Your task to perform on an android device: Search for the best 4k TVs Image 0: 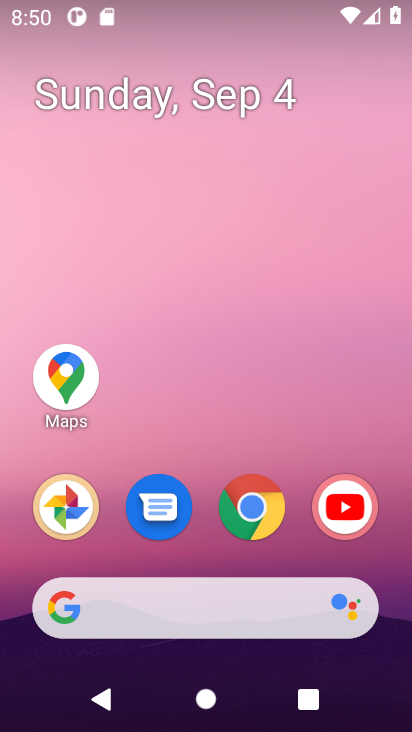
Step 0: click (255, 510)
Your task to perform on an android device: Search for the best 4k TVs Image 1: 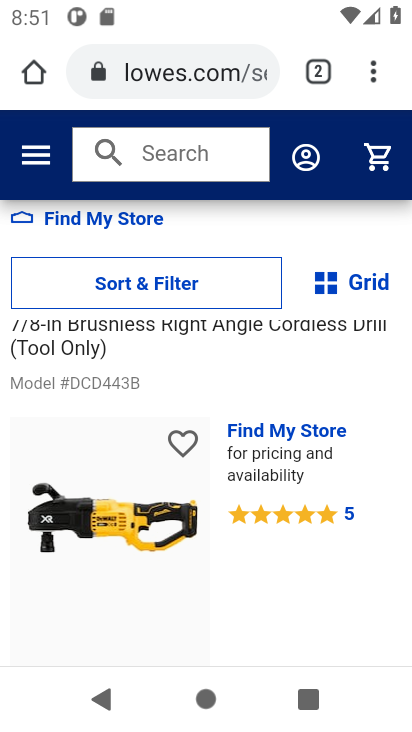
Step 1: click (184, 54)
Your task to perform on an android device: Search for the best 4k TVs Image 2: 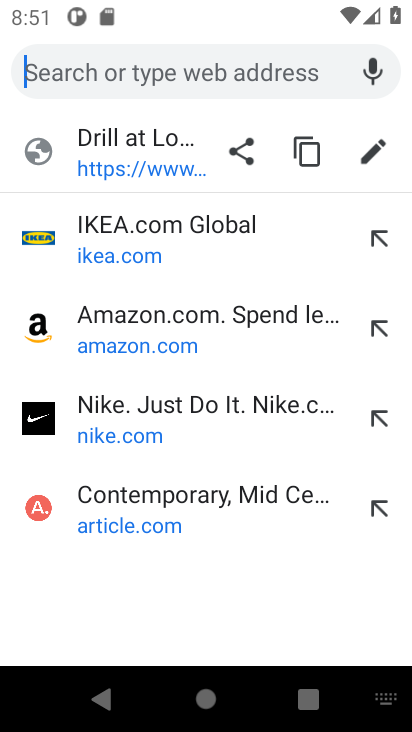
Step 2: type "best 4k TVs"
Your task to perform on an android device: Search for the best 4k TVs Image 3: 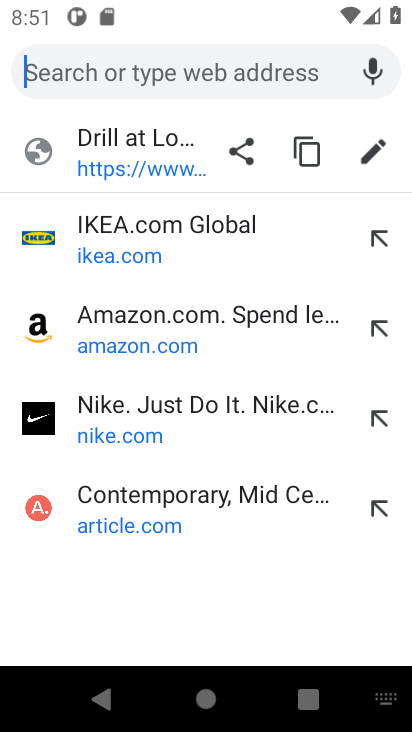
Step 3: click (112, 64)
Your task to perform on an android device: Search for the best 4k TVs Image 4: 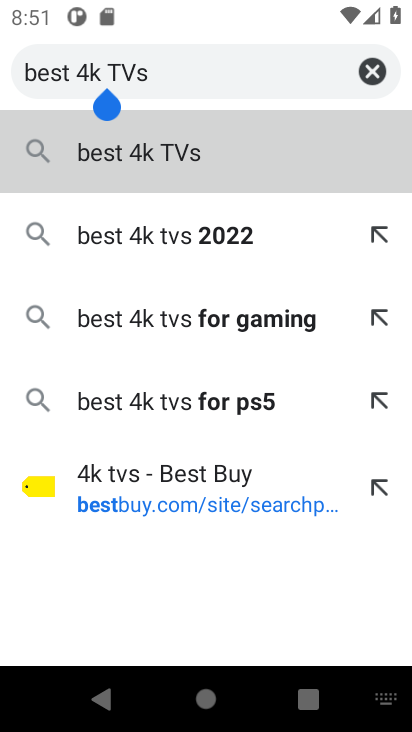
Step 4: click (138, 146)
Your task to perform on an android device: Search for the best 4k TVs Image 5: 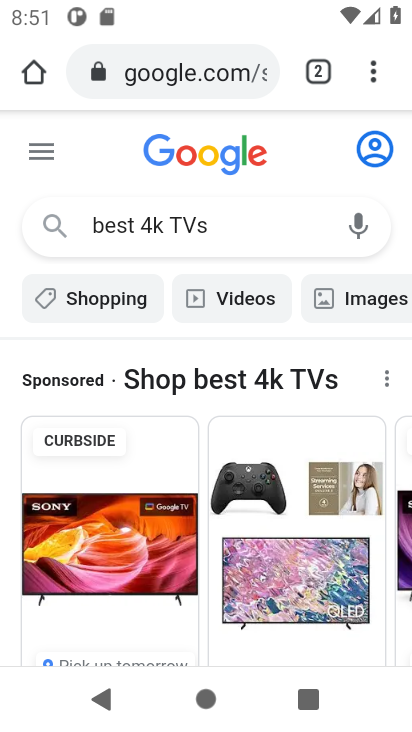
Step 5: task complete